Your task to perform on an android device: turn off picture-in-picture Image 0: 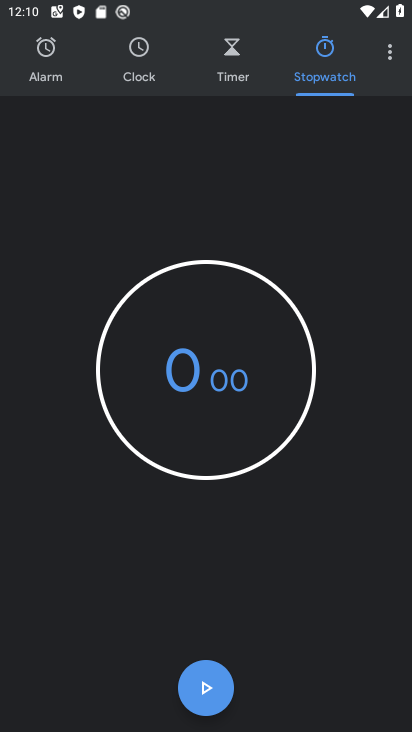
Step 0: press home button
Your task to perform on an android device: turn off picture-in-picture Image 1: 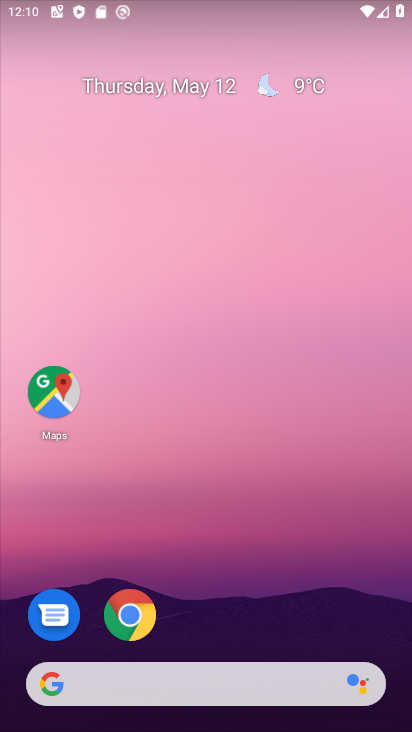
Step 1: click (117, 624)
Your task to perform on an android device: turn off picture-in-picture Image 2: 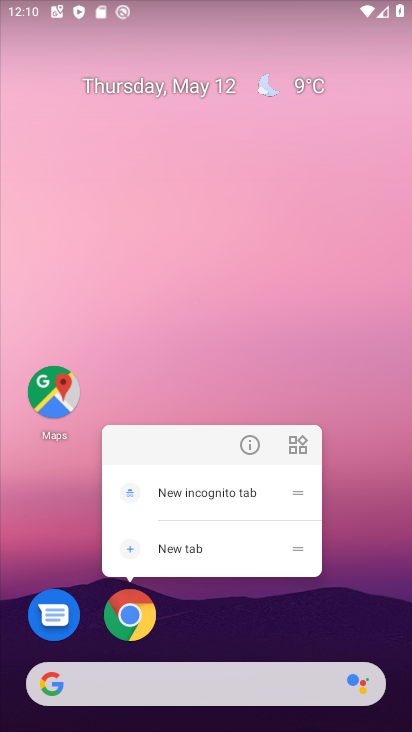
Step 2: click (254, 446)
Your task to perform on an android device: turn off picture-in-picture Image 3: 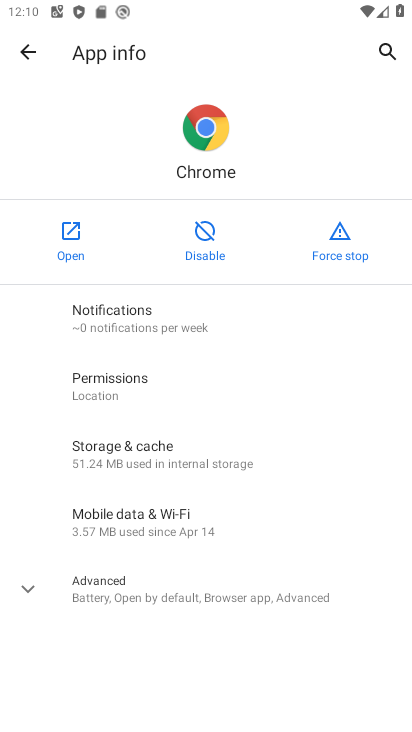
Step 3: click (211, 597)
Your task to perform on an android device: turn off picture-in-picture Image 4: 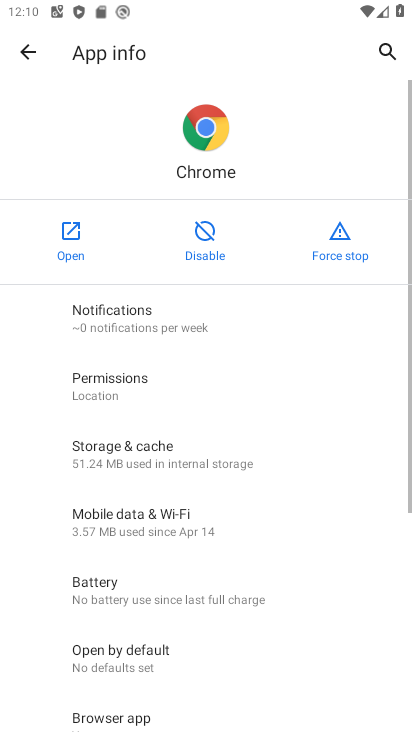
Step 4: drag from (238, 668) to (76, 164)
Your task to perform on an android device: turn off picture-in-picture Image 5: 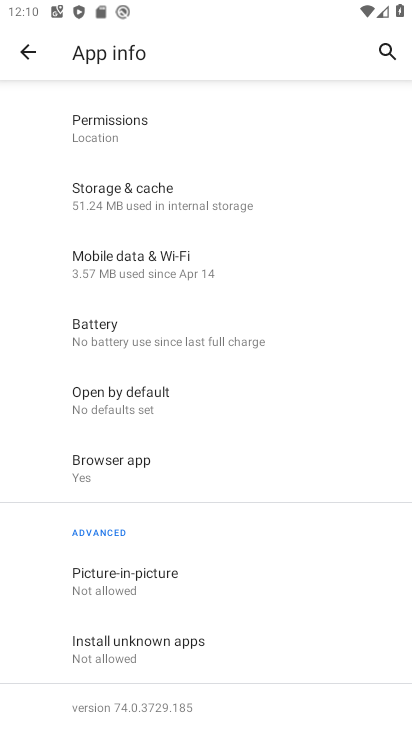
Step 5: click (152, 574)
Your task to perform on an android device: turn off picture-in-picture Image 6: 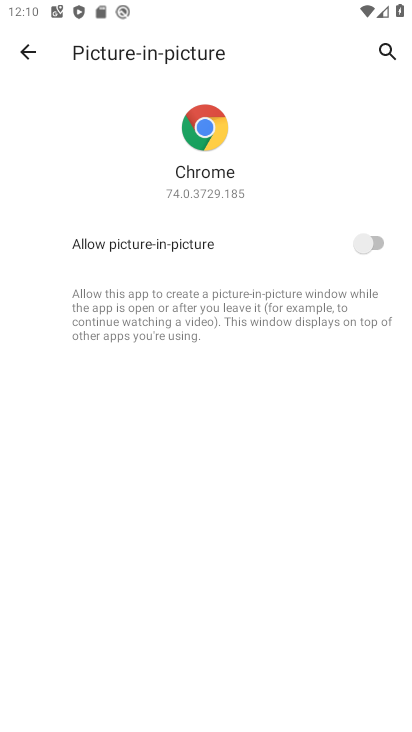
Step 6: task complete